Your task to perform on an android device: Clear the shopping cart on bestbuy.com. Image 0: 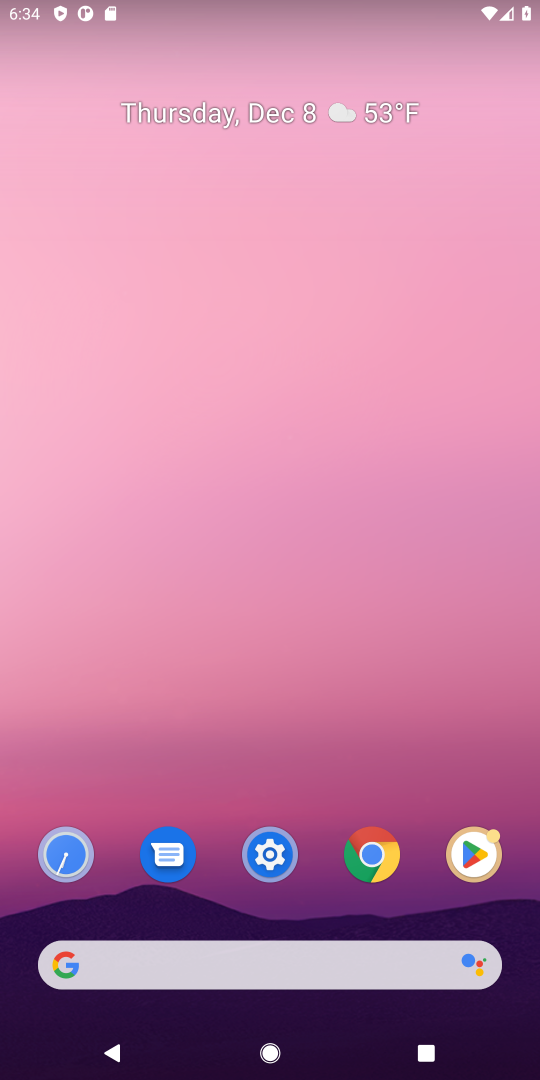
Step 0: click (96, 961)
Your task to perform on an android device: Clear the shopping cart on bestbuy.com. Image 1: 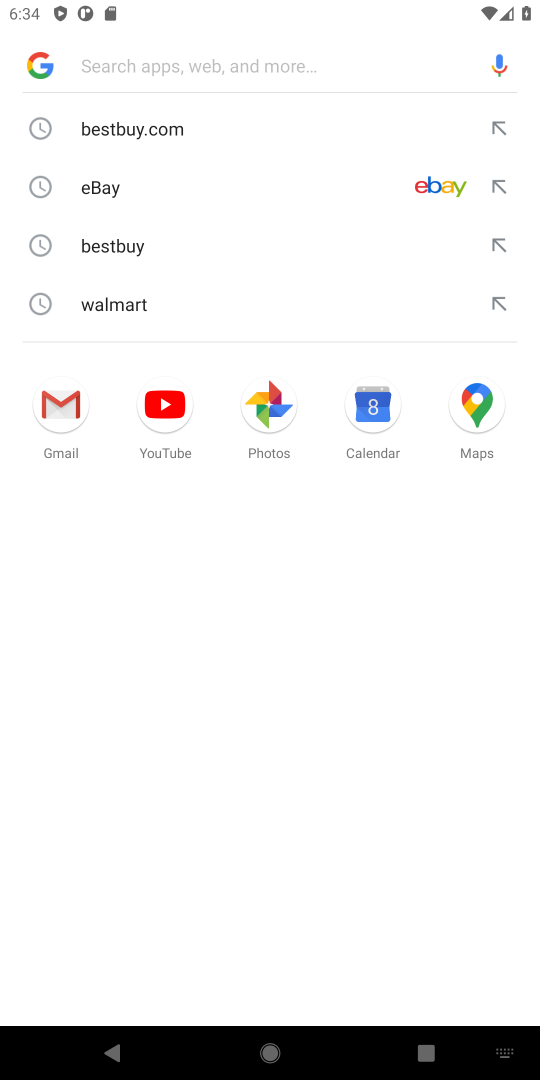
Step 1: type "bestbuy.com"
Your task to perform on an android device: Clear the shopping cart on bestbuy.com. Image 2: 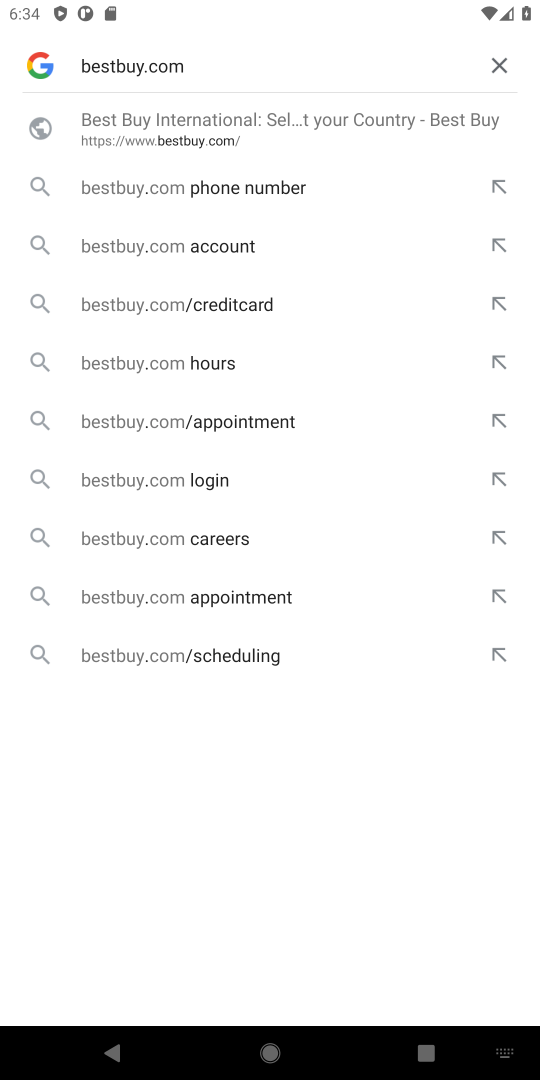
Step 2: press enter
Your task to perform on an android device: Clear the shopping cart on bestbuy.com. Image 3: 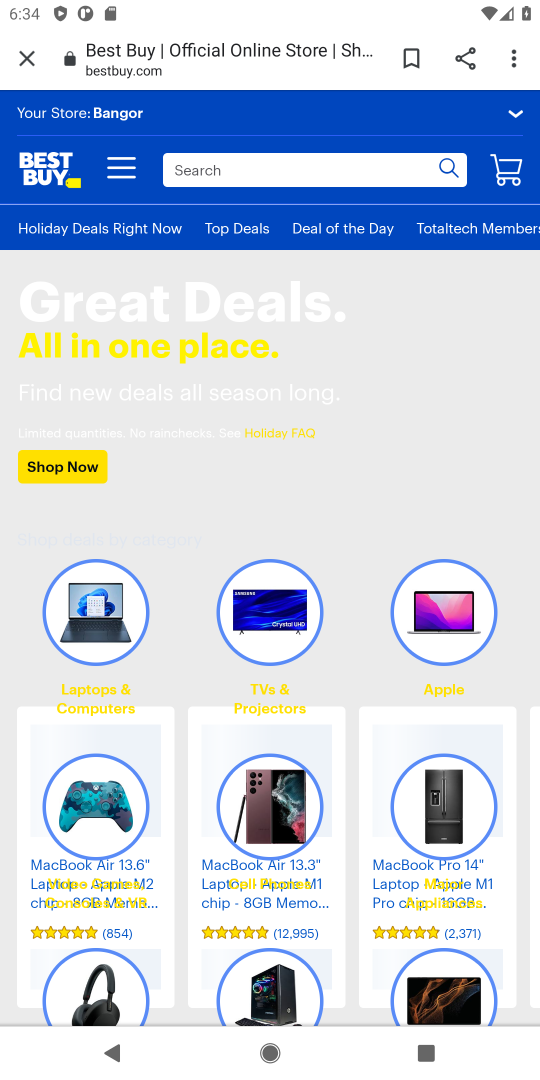
Step 3: click (508, 171)
Your task to perform on an android device: Clear the shopping cart on bestbuy.com. Image 4: 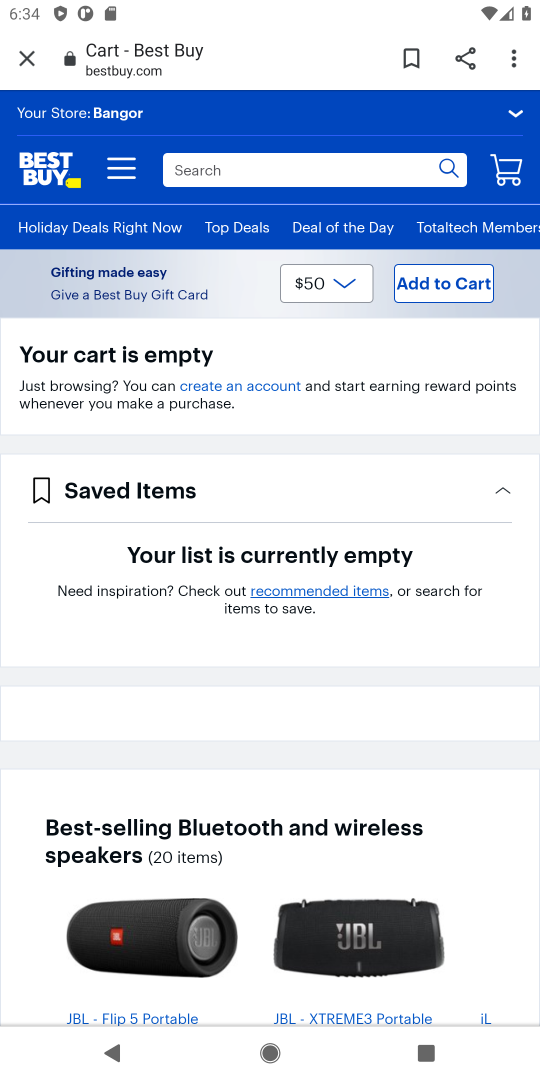
Step 4: task complete